Your task to perform on an android device: turn vacation reply on in the gmail app Image 0: 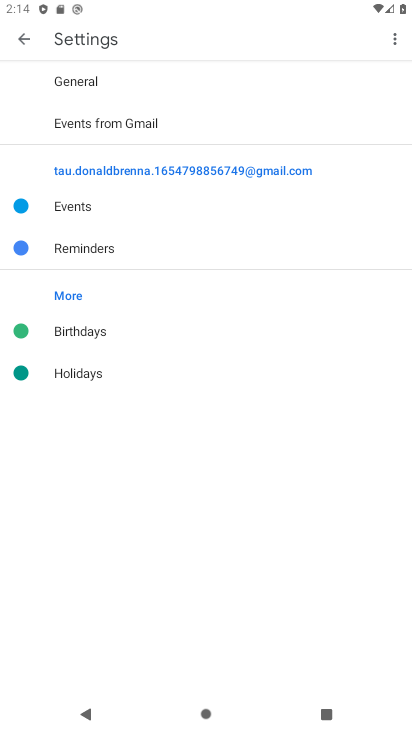
Step 0: press home button
Your task to perform on an android device: turn vacation reply on in the gmail app Image 1: 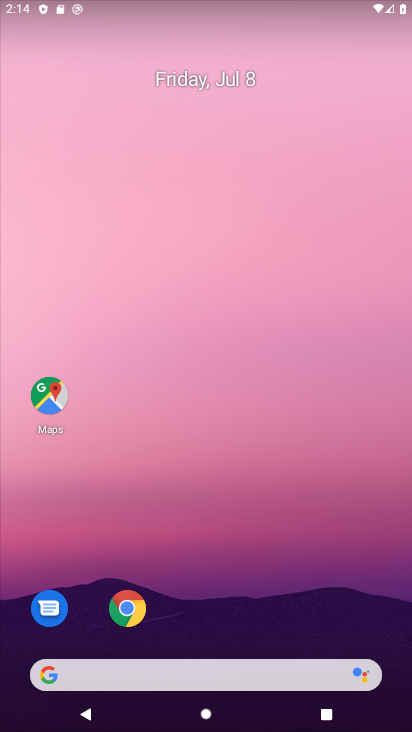
Step 1: drag from (353, 627) to (272, 53)
Your task to perform on an android device: turn vacation reply on in the gmail app Image 2: 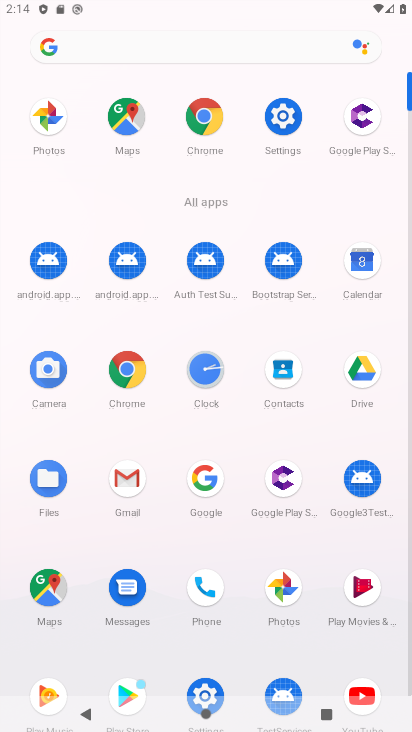
Step 2: click (127, 481)
Your task to perform on an android device: turn vacation reply on in the gmail app Image 3: 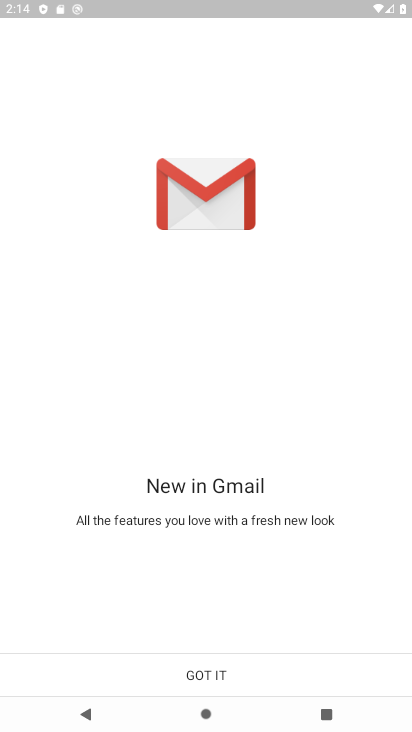
Step 3: click (237, 663)
Your task to perform on an android device: turn vacation reply on in the gmail app Image 4: 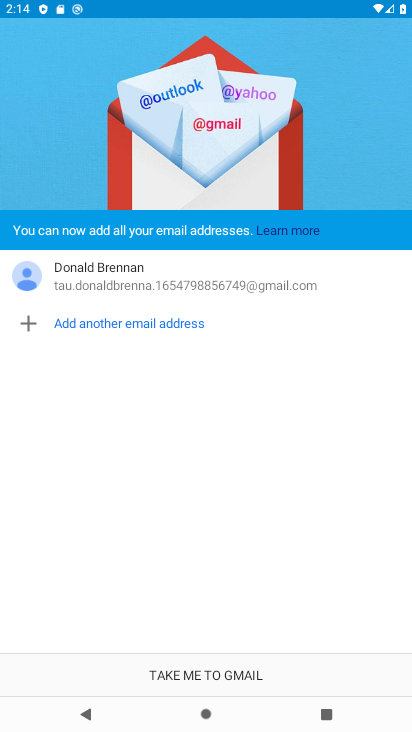
Step 4: click (168, 673)
Your task to perform on an android device: turn vacation reply on in the gmail app Image 5: 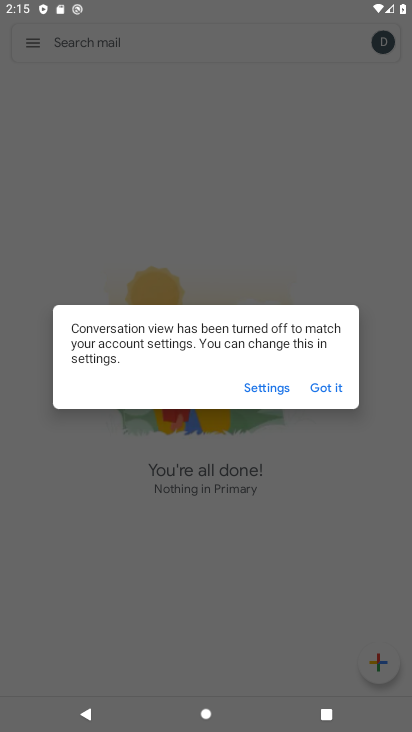
Step 5: click (316, 385)
Your task to perform on an android device: turn vacation reply on in the gmail app Image 6: 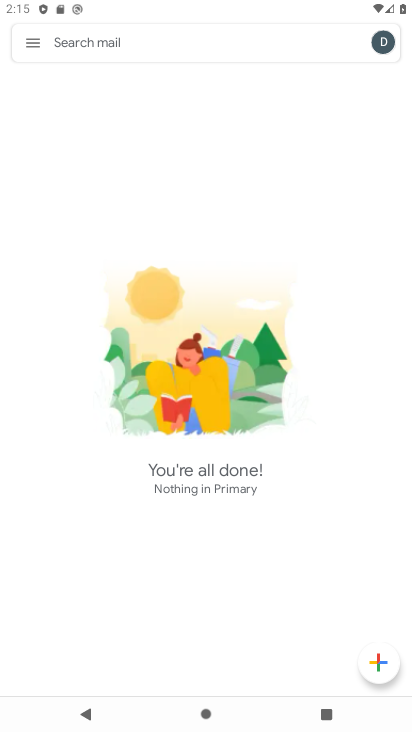
Step 6: click (28, 32)
Your task to perform on an android device: turn vacation reply on in the gmail app Image 7: 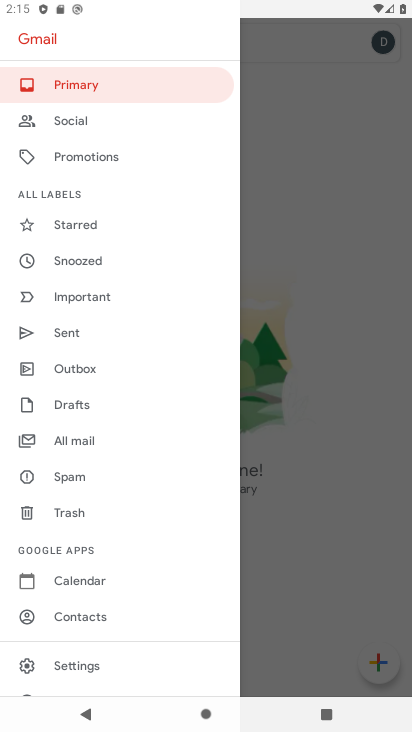
Step 7: click (67, 660)
Your task to perform on an android device: turn vacation reply on in the gmail app Image 8: 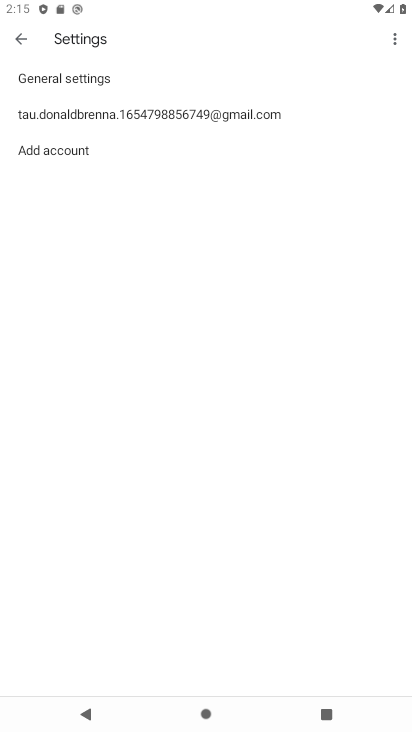
Step 8: click (135, 106)
Your task to perform on an android device: turn vacation reply on in the gmail app Image 9: 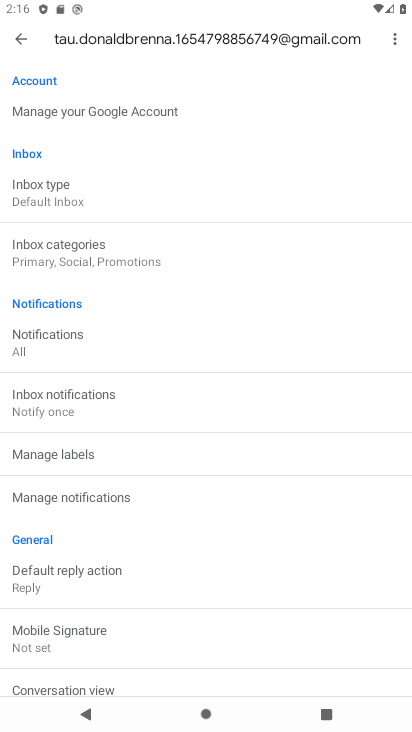
Step 9: drag from (214, 630) to (154, 431)
Your task to perform on an android device: turn vacation reply on in the gmail app Image 10: 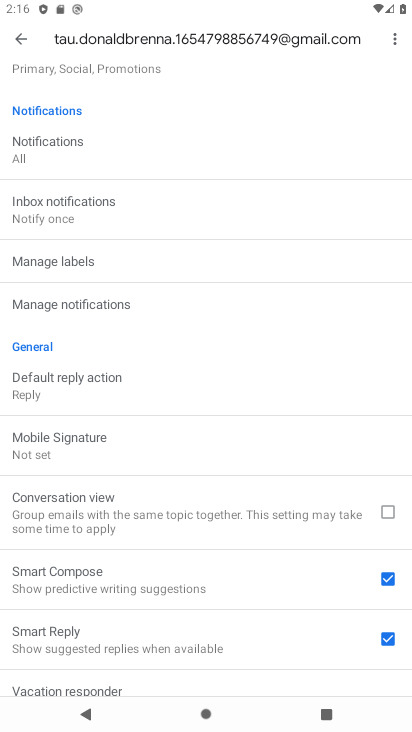
Step 10: drag from (184, 578) to (148, 431)
Your task to perform on an android device: turn vacation reply on in the gmail app Image 11: 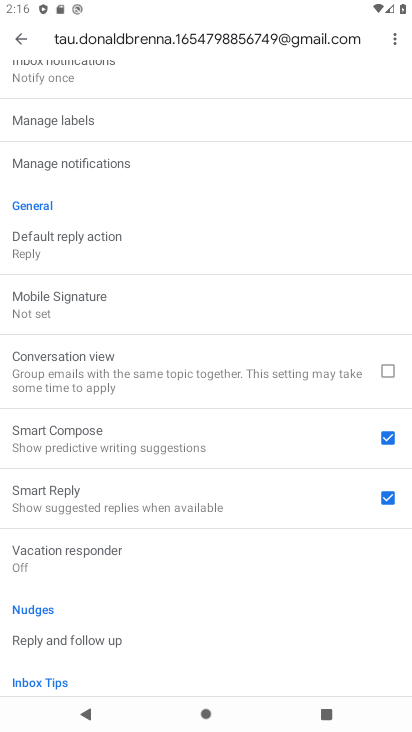
Step 11: click (170, 551)
Your task to perform on an android device: turn vacation reply on in the gmail app Image 12: 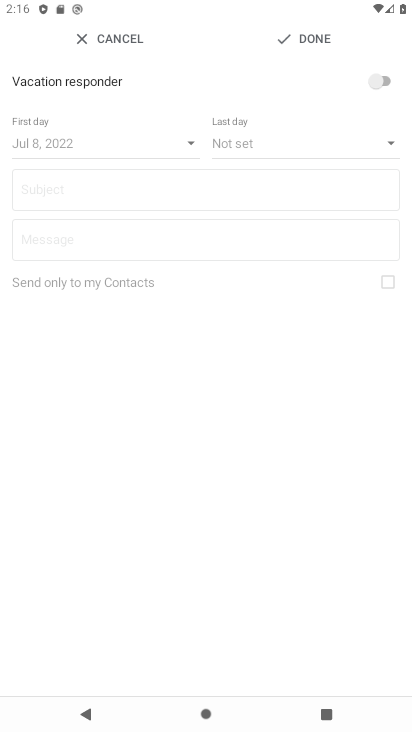
Step 12: click (376, 80)
Your task to perform on an android device: turn vacation reply on in the gmail app Image 13: 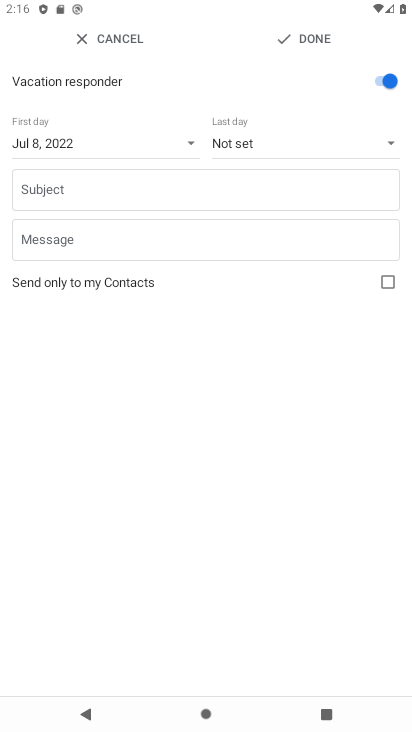
Step 13: click (229, 188)
Your task to perform on an android device: turn vacation reply on in the gmail app Image 14: 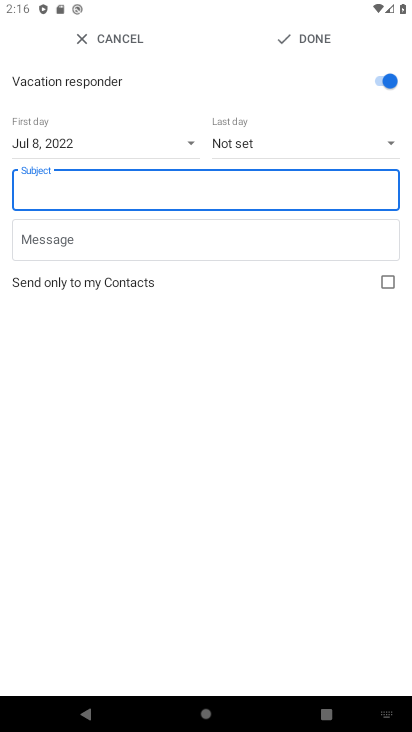
Step 14: type "g"
Your task to perform on an android device: turn vacation reply on in the gmail app Image 15: 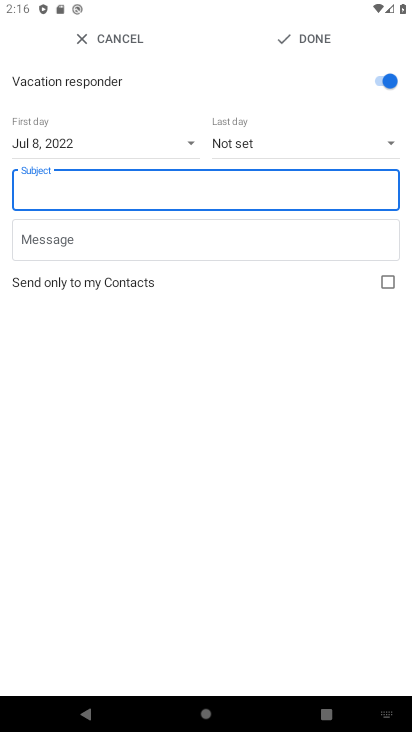
Step 15: click (138, 240)
Your task to perform on an android device: turn vacation reply on in the gmail app Image 16: 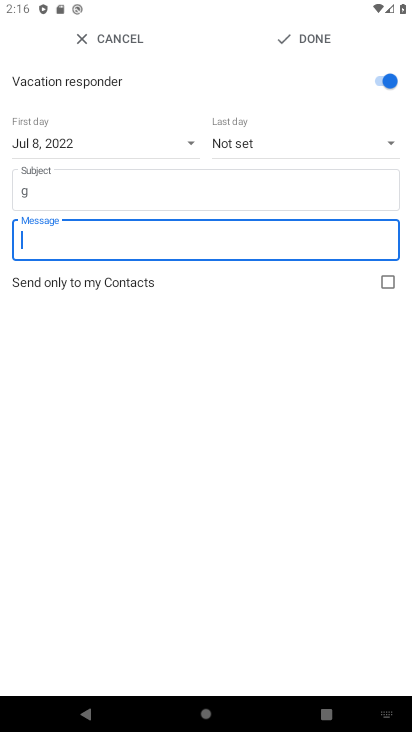
Step 16: type "p"
Your task to perform on an android device: turn vacation reply on in the gmail app Image 17: 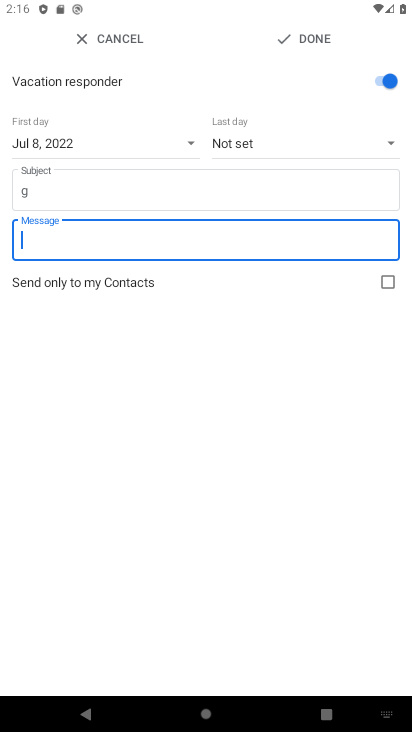
Step 17: click (316, 38)
Your task to perform on an android device: turn vacation reply on in the gmail app Image 18: 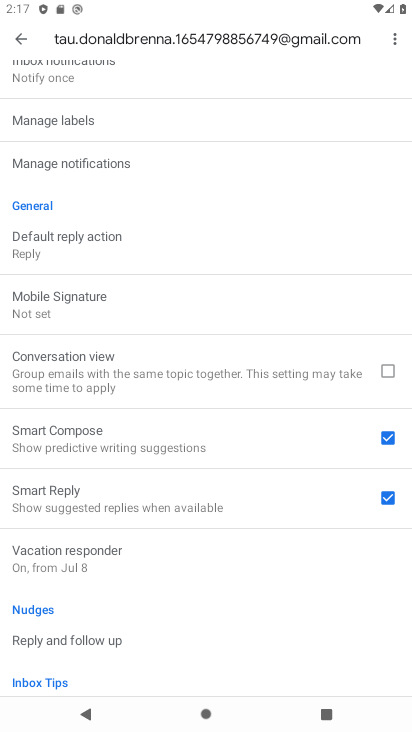
Step 18: task complete